Your task to perform on an android device: Open Google Chrome Image 0: 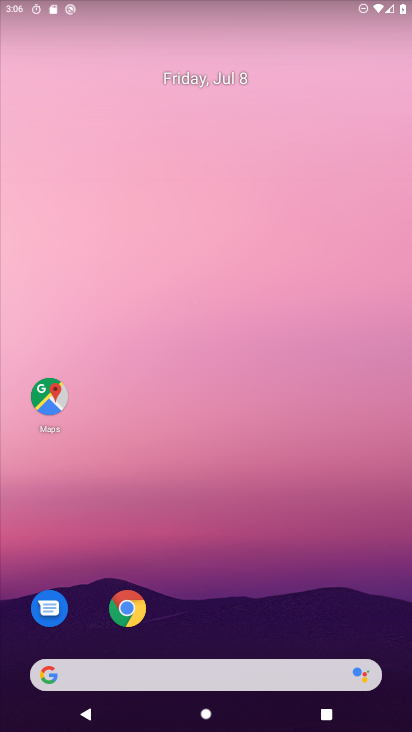
Step 0: click (128, 613)
Your task to perform on an android device: Open Google Chrome Image 1: 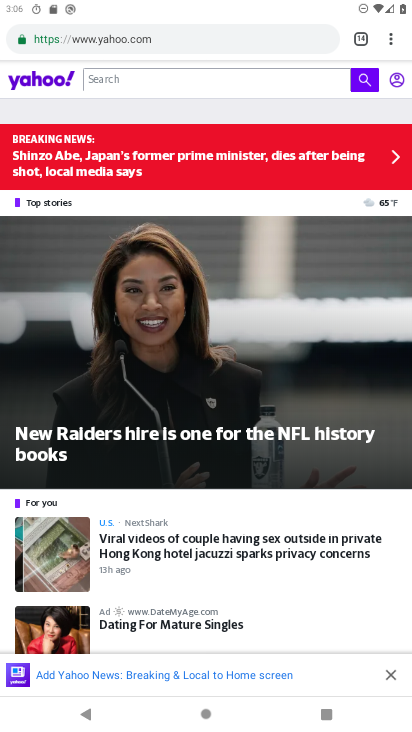
Step 1: task complete